Your task to perform on an android device: find photos in the google photos app Image 0: 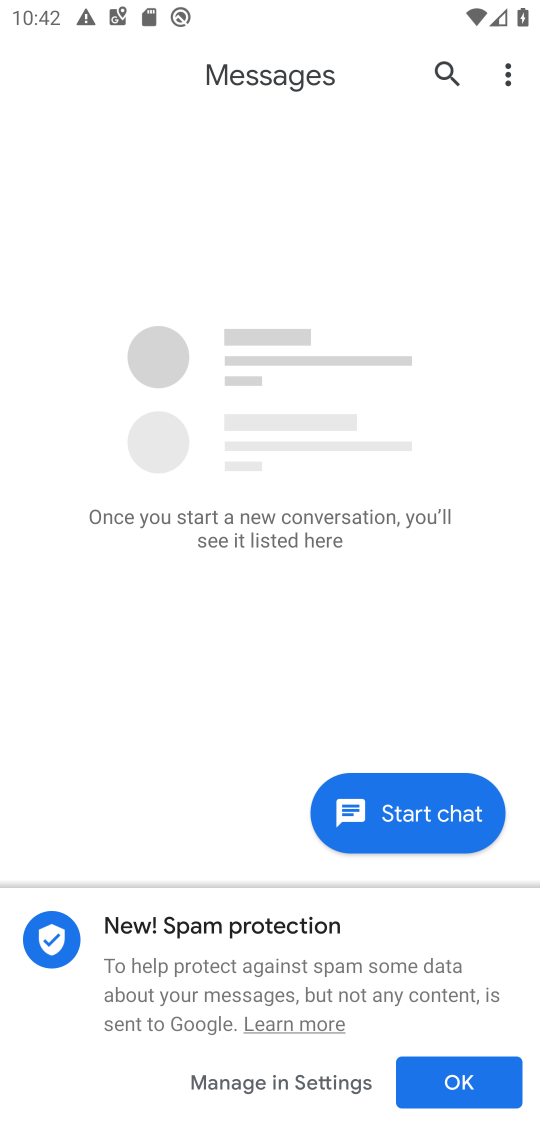
Step 0: press back button
Your task to perform on an android device: find photos in the google photos app Image 1: 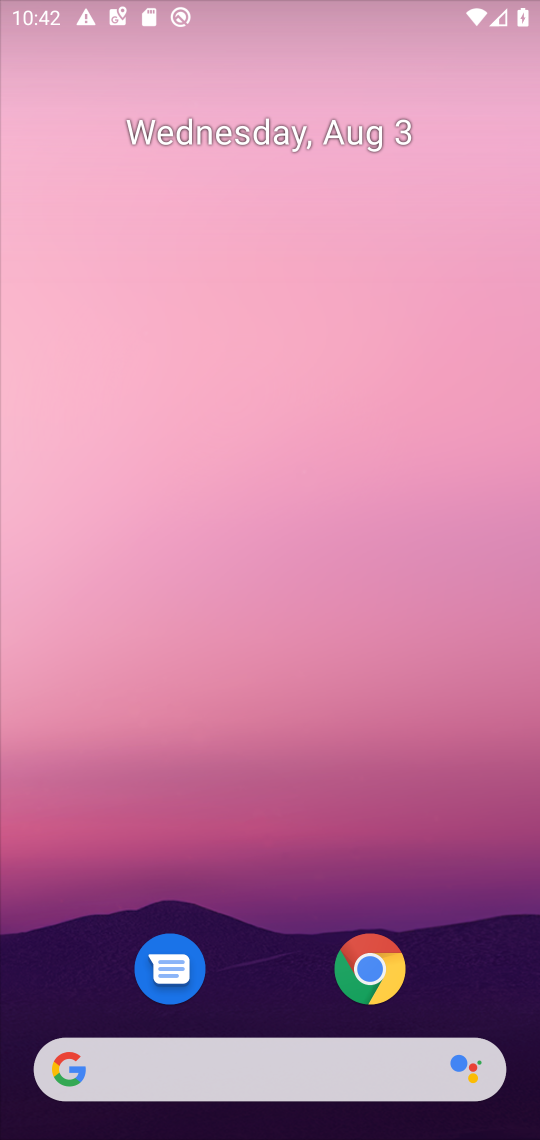
Step 1: press back button
Your task to perform on an android device: find photos in the google photos app Image 2: 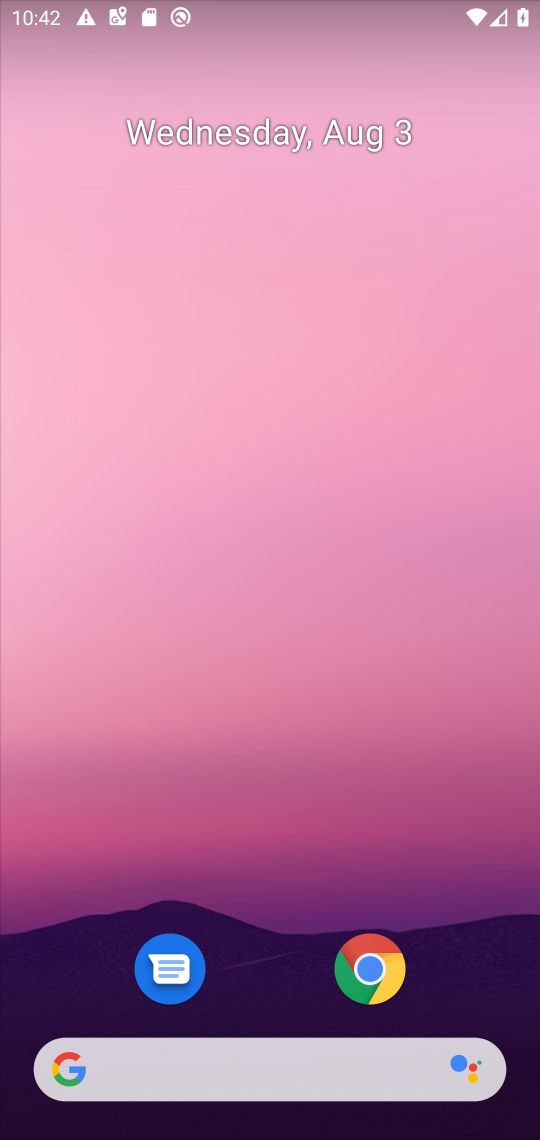
Step 2: drag from (293, 1015) to (222, 58)
Your task to perform on an android device: find photos in the google photos app Image 3: 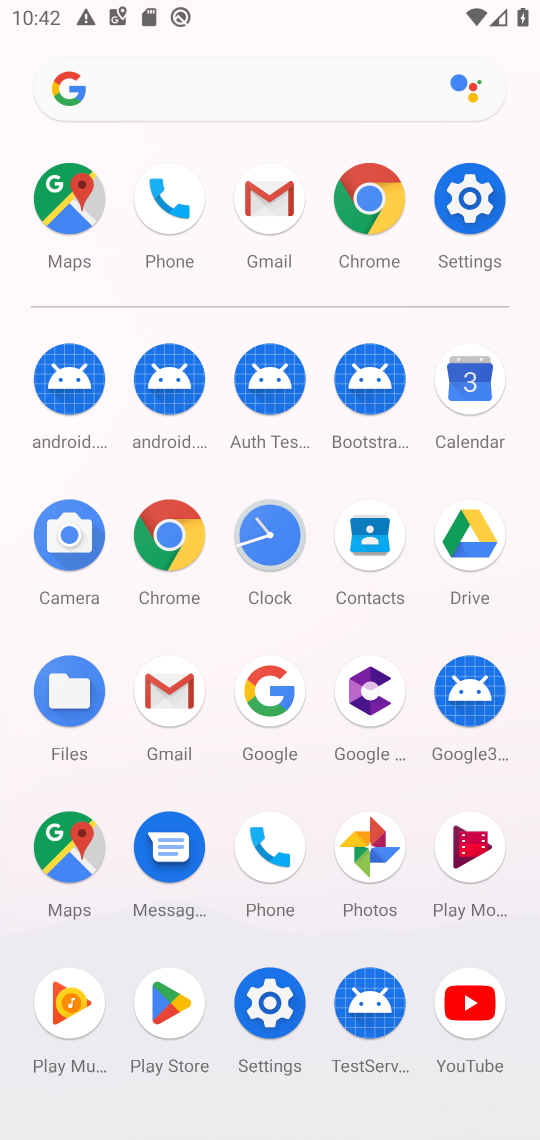
Step 3: click (372, 856)
Your task to perform on an android device: find photos in the google photos app Image 4: 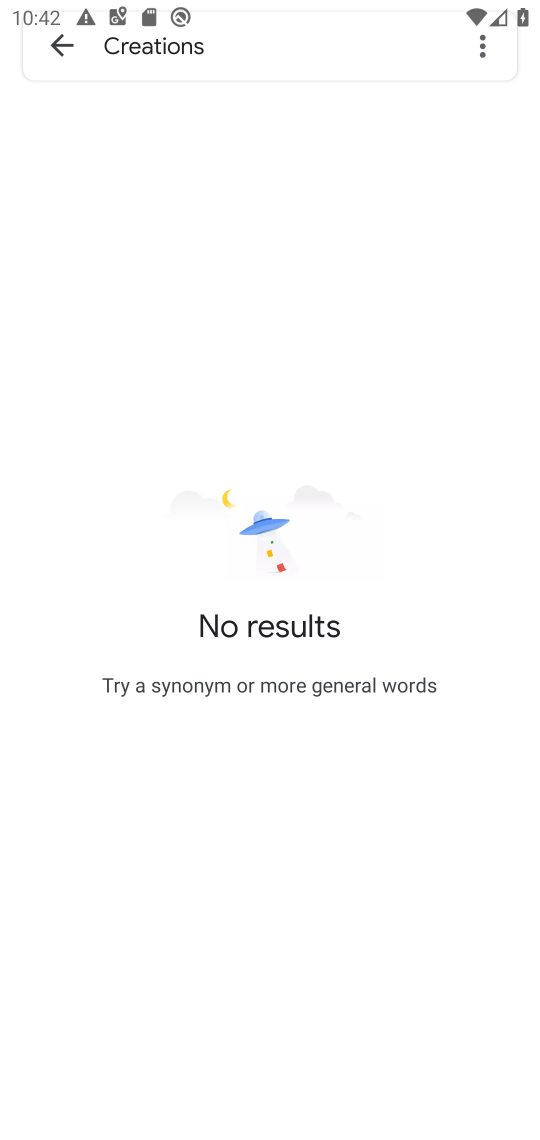
Step 4: click (44, 67)
Your task to perform on an android device: find photos in the google photos app Image 5: 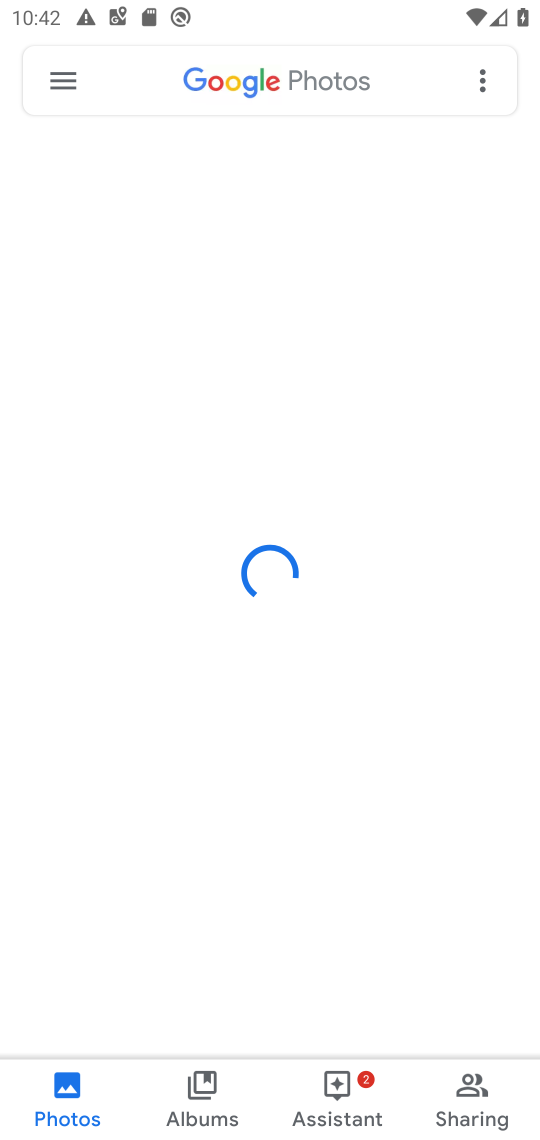
Step 5: task complete